Your task to perform on an android device: Where can I buy a nice beach hat? Image 0: 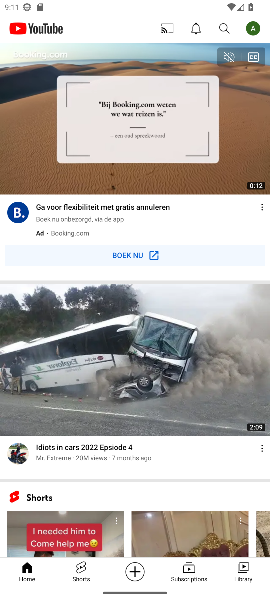
Step 0: press home button
Your task to perform on an android device: Where can I buy a nice beach hat? Image 1: 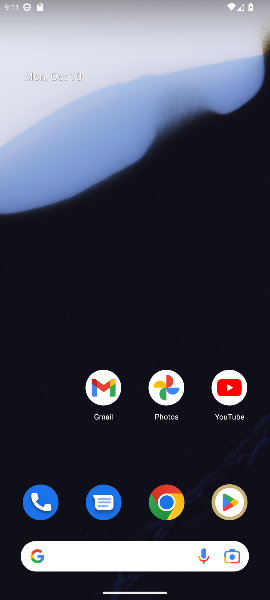
Step 1: click (166, 508)
Your task to perform on an android device: Where can I buy a nice beach hat? Image 2: 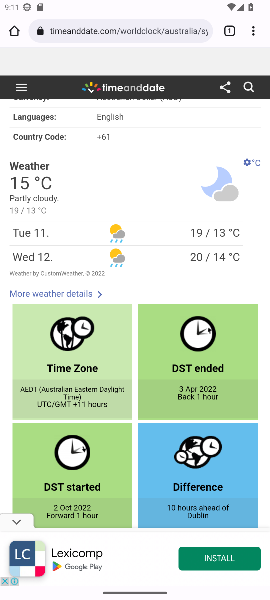
Step 2: click (110, 38)
Your task to perform on an android device: Where can I buy a nice beach hat? Image 3: 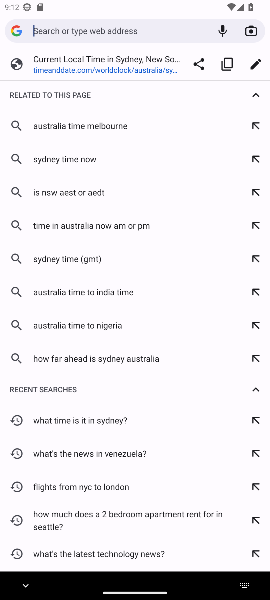
Step 3: type "Where can I buy a nice beach hat?"
Your task to perform on an android device: Where can I buy a nice beach hat? Image 4: 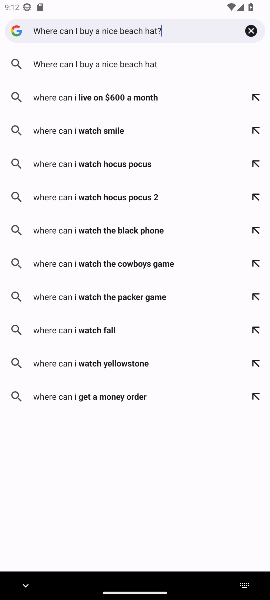
Step 4: type ""
Your task to perform on an android device: Where can I buy a nice beach hat? Image 5: 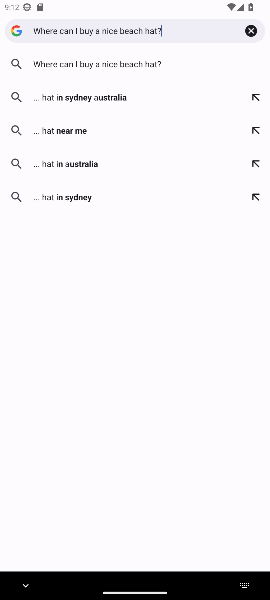
Step 5: press enter
Your task to perform on an android device: Where can I buy a nice beach hat? Image 6: 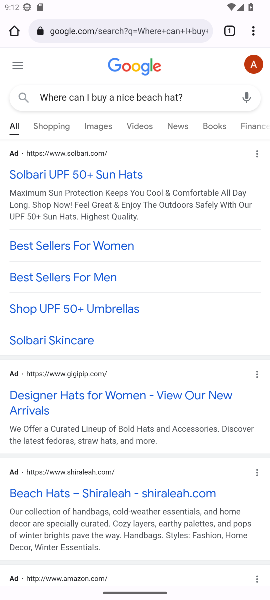
Step 6: drag from (145, 420) to (182, 143)
Your task to perform on an android device: Where can I buy a nice beach hat? Image 7: 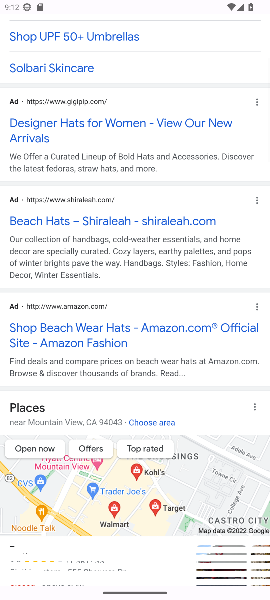
Step 7: click (108, 228)
Your task to perform on an android device: Where can I buy a nice beach hat? Image 8: 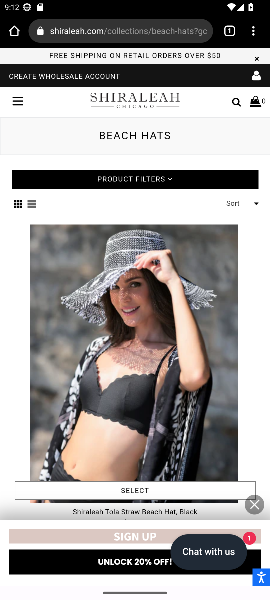
Step 8: drag from (121, 338) to (143, 115)
Your task to perform on an android device: Where can I buy a nice beach hat? Image 9: 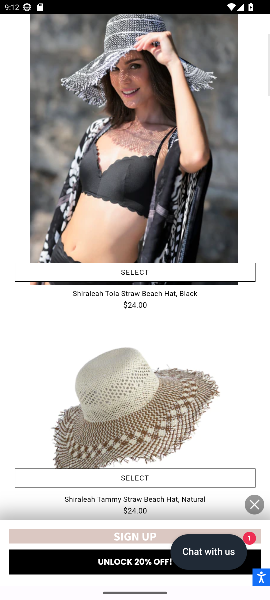
Step 9: click (184, 123)
Your task to perform on an android device: Where can I buy a nice beach hat? Image 10: 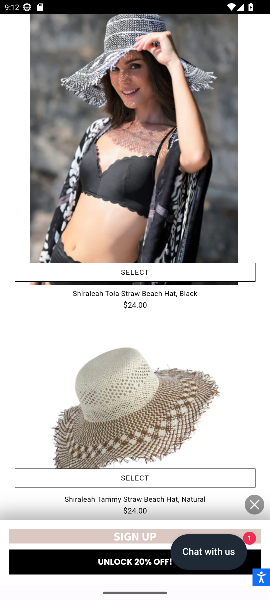
Step 10: drag from (151, 375) to (170, 149)
Your task to perform on an android device: Where can I buy a nice beach hat? Image 11: 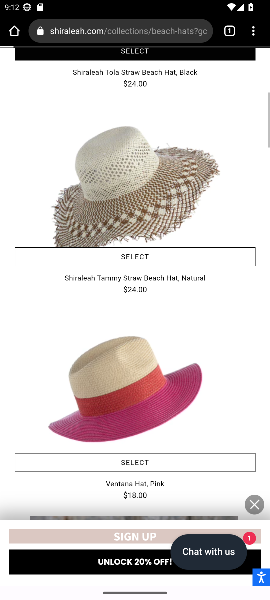
Step 11: drag from (157, 331) to (211, 166)
Your task to perform on an android device: Where can I buy a nice beach hat? Image 12: 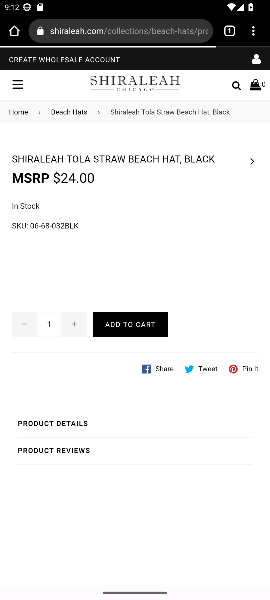
Step 12: drag from (199, 382) to (208, 147)
Your task to perform on an android device: Where can I buy a nice beach hat? Image 13: 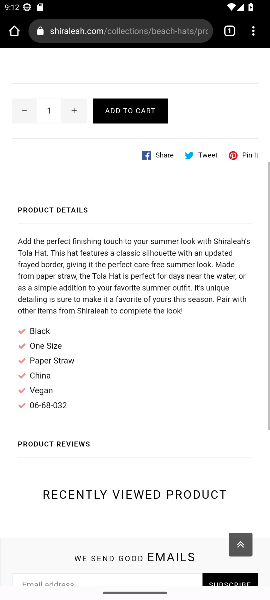
Step 13: drag from (184, 404) to (208, 183)
Your task to perform on an android device: Where can I buy a nice beach hat? Image 14: 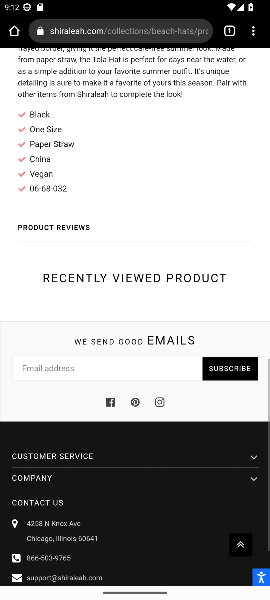
Step 14: drag from (200, 366) to (209, 165)
Your task to perform on an android device: Where can I buy a nice beach hat? Image 15: 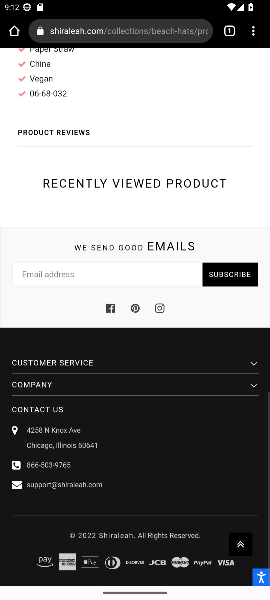
Step 15: click (212, 184)
Your task to perform on an android device: Where can I buy a nice beach hat? Image 16: 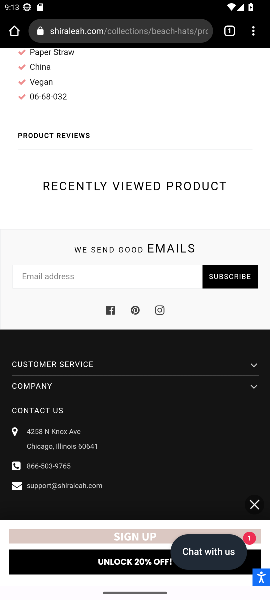
Step 16: drag from (213, 183) to (212, 395)
Your task to perform on an android device: Where can I buy a nice beach hat? Image 17: 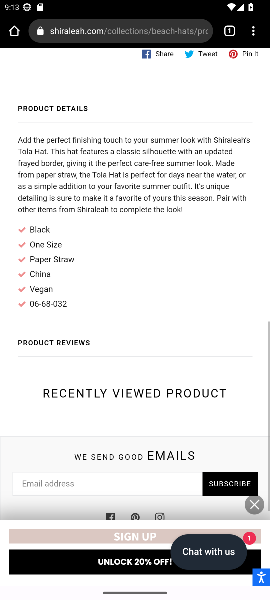
Step 17: drag from (187, 196) to (185, 442)
Your task to perform on an android device: Where can I buy a nice beach hat? Image 18: 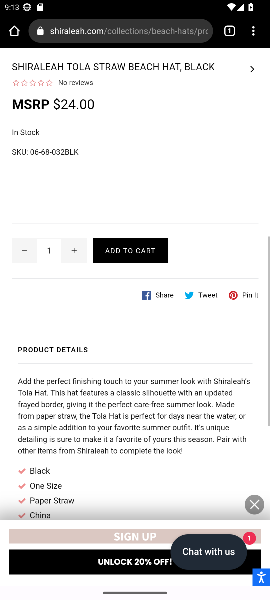
Step 18: drag from (167, 217) to (162, 467)
Your task to perform on an android device: Where can I buy a nice beach hat? Image 19: 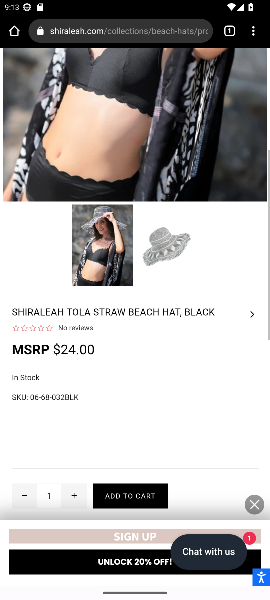
Step 19: drag from (189, 214) to (181, 436)
Your task to perform on an android device: Where can I buy a nice beach hat? Image 20: 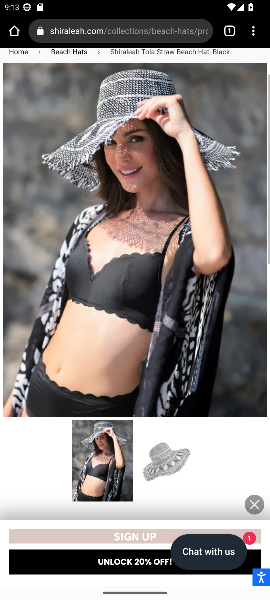
Step 20: drag from (179, 165) to (166, 416)
Your task to perform on an android device: Where can I buy a nice beach hat? Image 21: 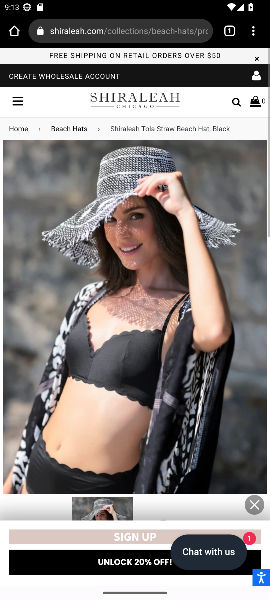
Step 21: drag from (166, 183) to (167, 406)
Your task to perform on an android device: Where can I buy a nice beach hat? Image 22: 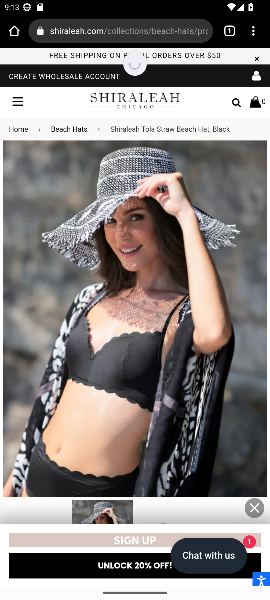
Step 22: drag from (175, 214) to (160, 383)
Your task to perform on an android device: Where can I buy a nice beach hat? Image 23: 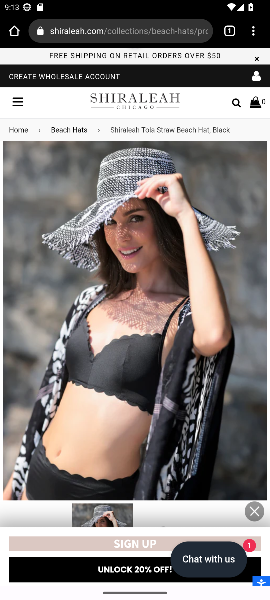
Step 23: drag from (153, 193) to (151, 378)
Your task to perform on an android device: Where can I buy a nice beach hat? Image 24: 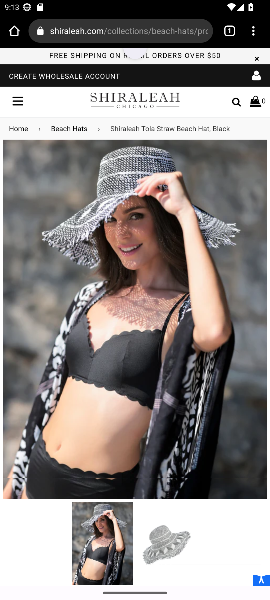
Step 24: drag from (152, 180) to (131, 396)
Your task to perform on an android device: Where can I buy a nice beach hat? Image 25: 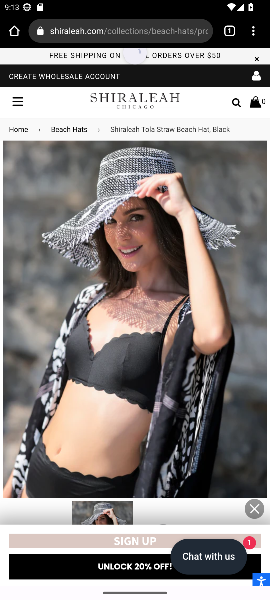
Step 25: drag from (145, 207) to (145, 355)
Your task to perform on an android device: Where can I buy a nice beach hat? Image 26: 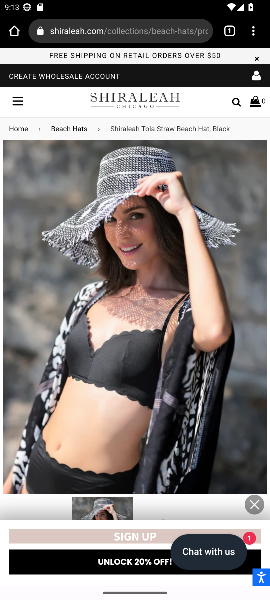
Step 26: drag from (168, 386) to (213, 163)
Your task to perform on an android device: Where can I buy a nice beach hat? Image 27: 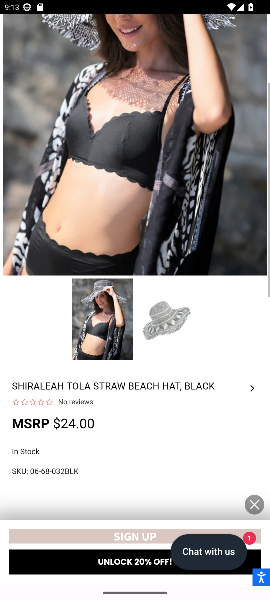
Step 27: drag from (215, 336) to (233, 187)
Your task to perform on an android device: Where can I buy a nice beach hat? Image 28: 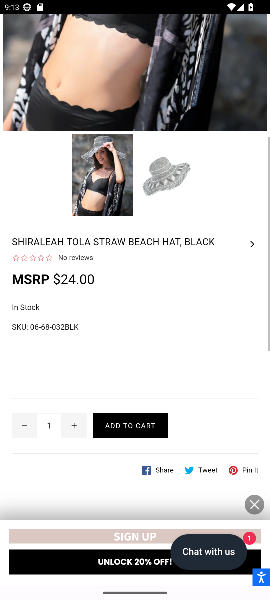
Step 28: drag from (221, 329) to (230, 191)
Your task to perform on an android device: Where can I buy a nice beach hat? Image 29: 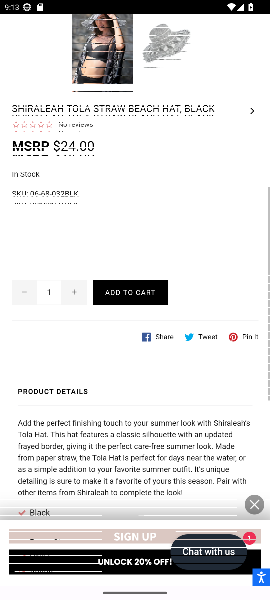
Step 29: drag from (226, 331) to (251, 168)
Your task to perform on an android device: Where can I buy a nice beach hat? Image 30: 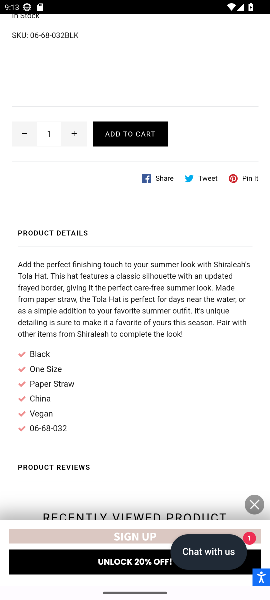
Step 30: press back button
Your task to perform on an android device: Where can I buy a nice beach hat? Image 31: 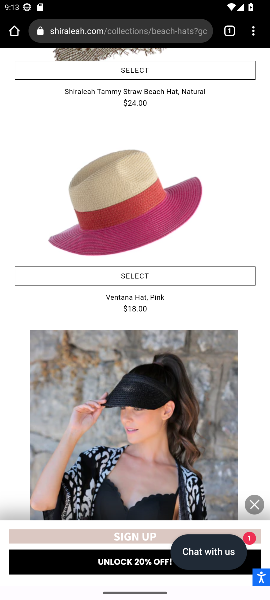
Step 31: drag from (179, 392) to (213, 170)
Your task to perform on an android device: Where can I buy a nice beach hat? Image 32: 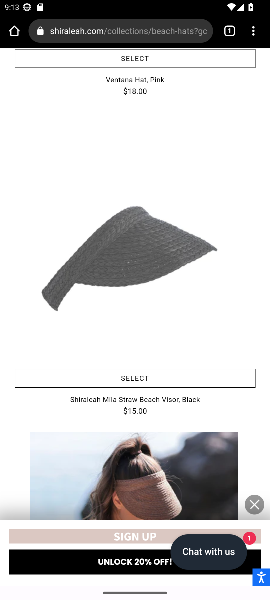
Step 32: click (192, 303)
Your task to perform on an android device: Where can I buy a nice beach hat? Image 33: 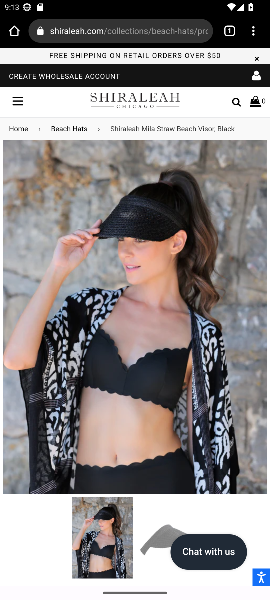
Step 33: drag from (176, 405) to (195, 179)
Your task to perform on an android device: Where can I buy a nice beach hat? Image 34: 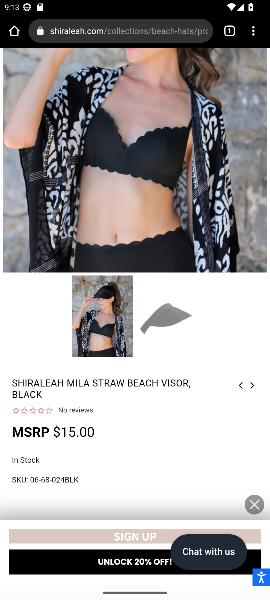
Step 34: press back button
Your task to perform on an android device: Where can I buy a nice beach hat? Image 35: 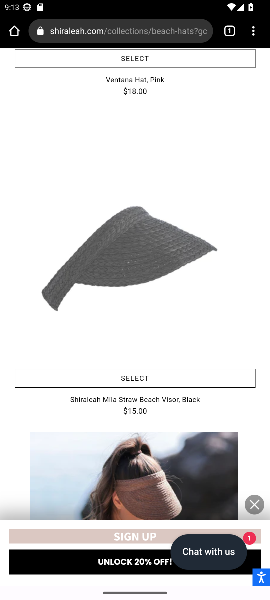
Step 35: press back button
Your task to perform on an android device: Where can I buy a nice beach hat? Image 36: 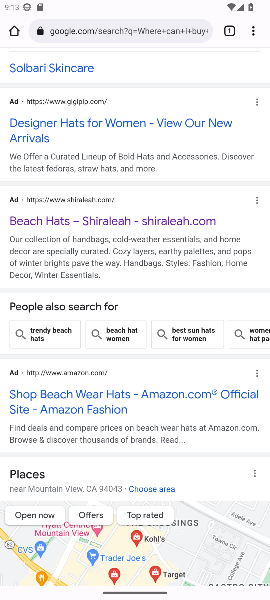
Step 36: drag from (152, 379) to (161, 70)
Your task to perform on an android device: Where can I buy a nice beach hat? Image 37: 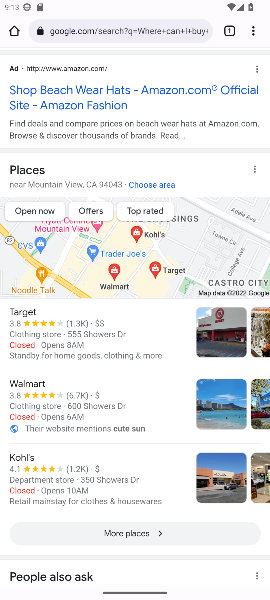
Step 37: drag from (137, 414) to (159, 96)
Your task to perform on an android device: Where can I buy a nice beach hat? Image 38: 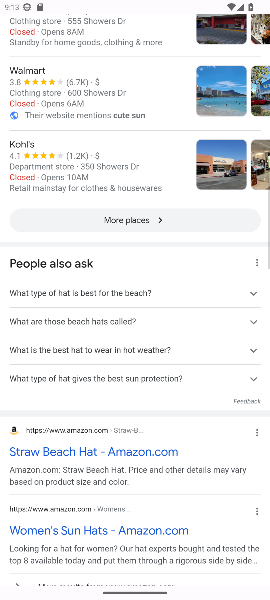
Step 38: drag from (129, 420) to (154, 97)
Your task to perform on an android device: Where can I buy a nice beach hat? Image 39: 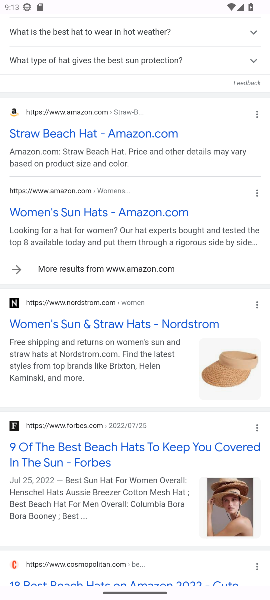
Step 39: click (113, 321)
Your task to perform on an android device: Where can I buy a nice beach hat? Image 40: 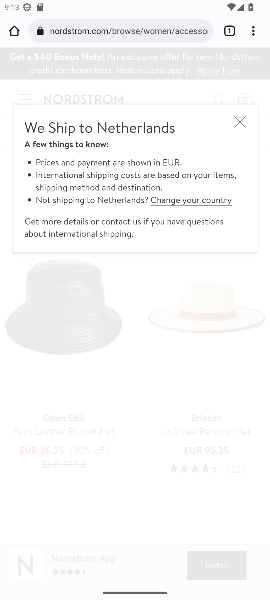
Step 40: drag from (129, 393) to (135, 107)
Your task to perform on an android device: Where can I buy a nice beach hat? Image 41: 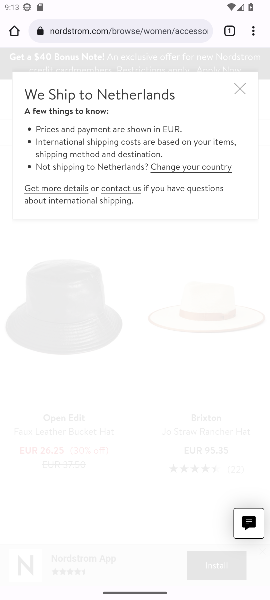
Step 41: click (234, 83)
Your task to perform on an android device: Where can I buy a nice beach hat? Image 42: 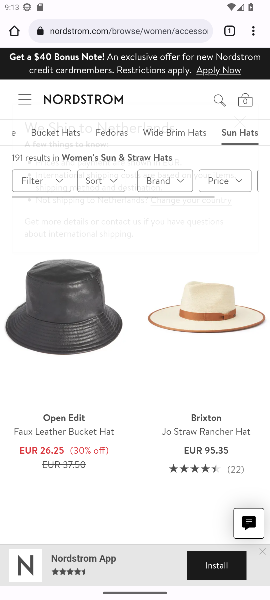
Step 42: click (202, 337)
Your task to perform on an android device: Where can I buy a nice beach hat? Image 43: 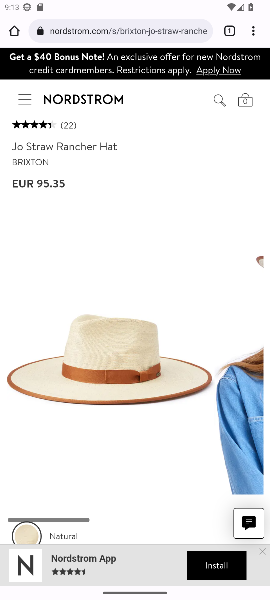
Step 43: click (217, 198)
Your task to perform on an android device: Where can I buy a nice beach hat? Image 44: 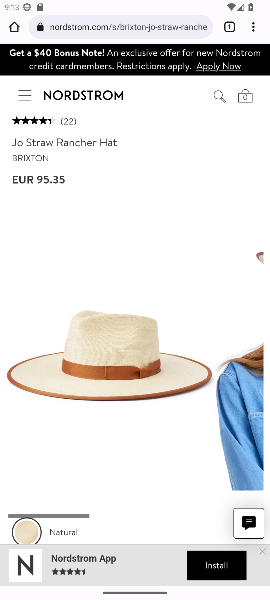
Step 44: task complete